Your task to perform on an android device: check battery use Image 0: 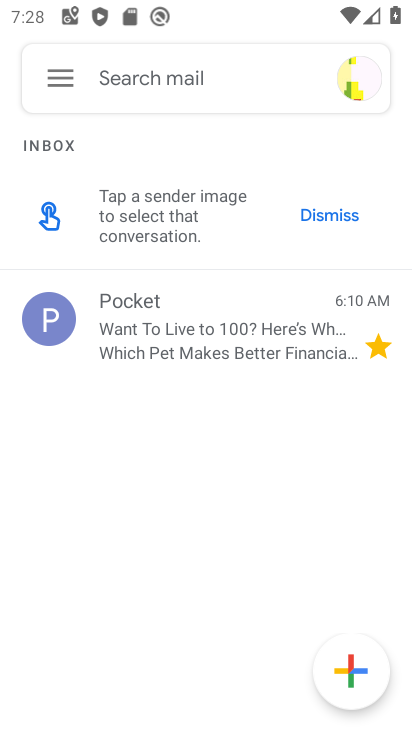
Step 0: press home button
Your task to perform on an android device: check battery use Image 1: 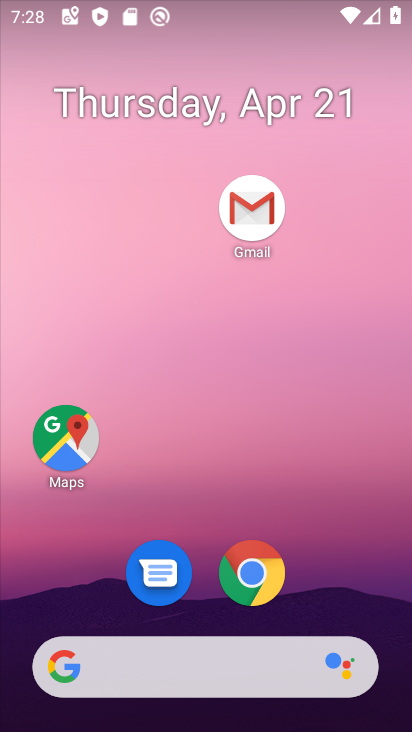
Step 1: drag from (346, 347) to (358, 146)
Your task to perform on an android device: check battery use Image 2: 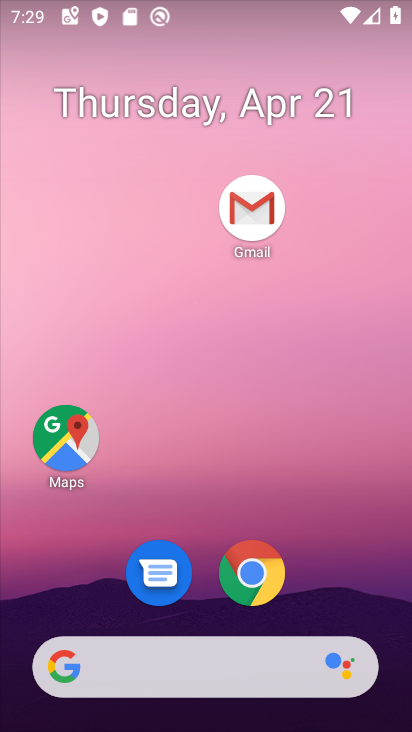
Step 2: drag from (373, 566) to (332, 68)
Your task to perform on an android device: check battery use Image 3: 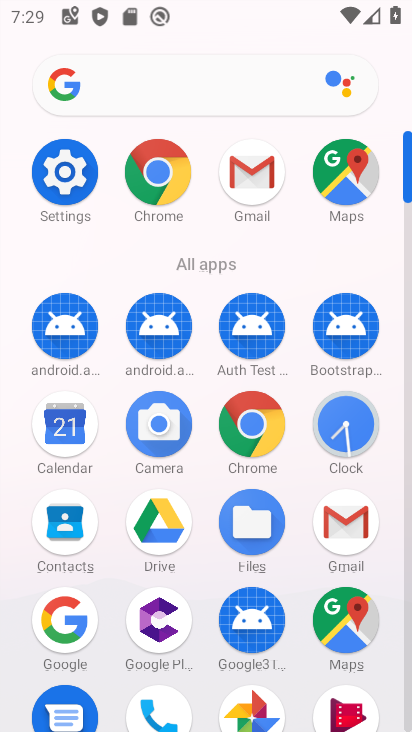
Step 3: click (73, 187)
Your task to perform on an android device: check battery use Image 4: 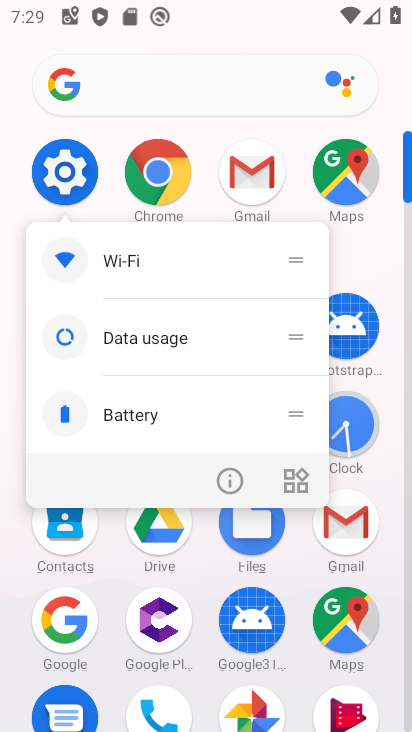
Step 4: click (83, 196)
Your task to perform on an android device: check battery use Image 5: 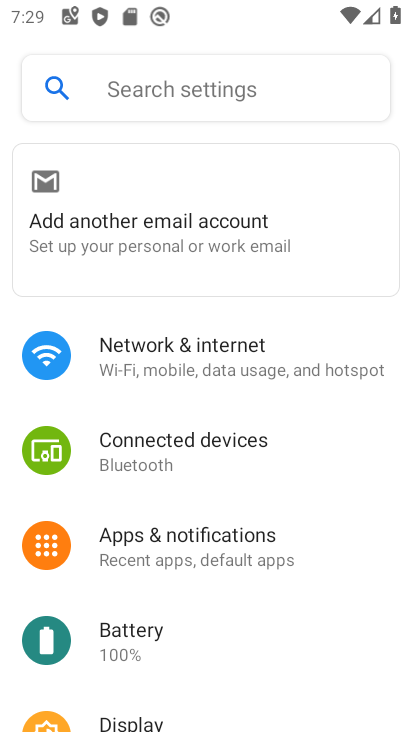
Step 5: drag from (277, 562) to (226, 279)
Your task to perform on an android device: check battery use Image 6: 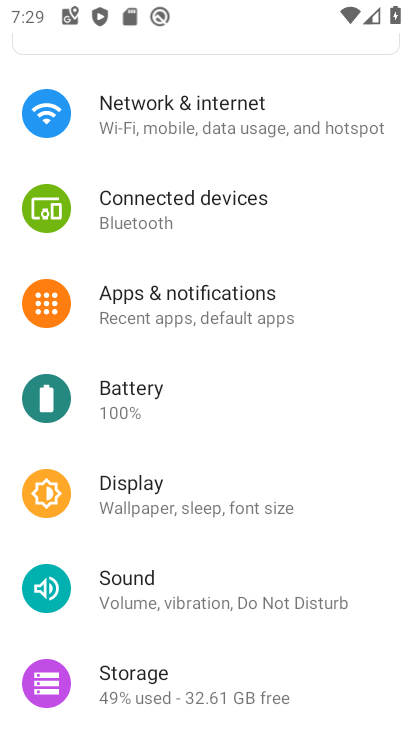
Step 6: click (119, 394)
Your task to perform on an android device: check battery use Image 7: 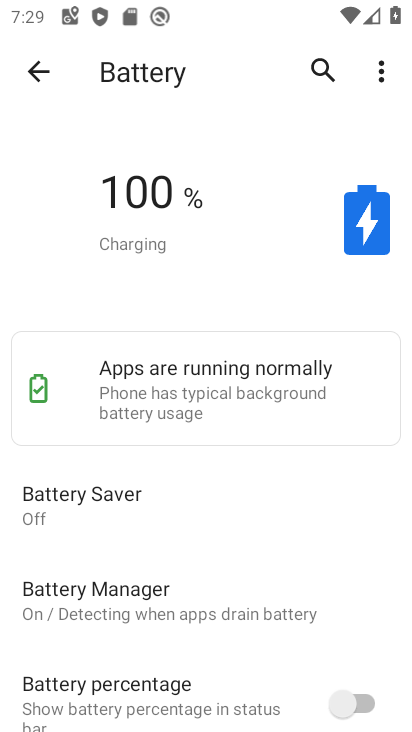
Step 7: task complete